Your task to perform on an android device: Open the calendar and show me this week's events Image 0: 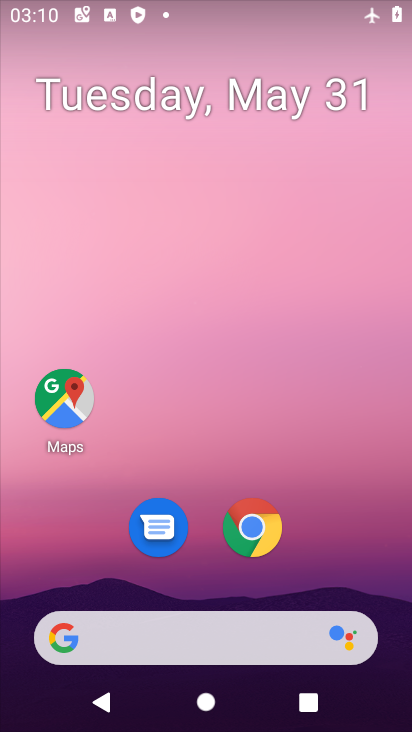
Step 0: drag from (400, 624) to (307, 99)
Your task to perform on an android device: Open the calendar and show me this week's events Image 1: 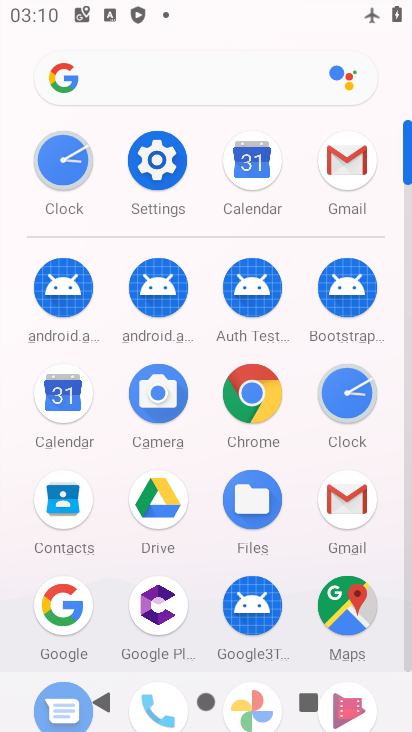
Step 1: click (406, 650)
Your task to perform on an android device: Open the calendar and show me this week's events Image 2: 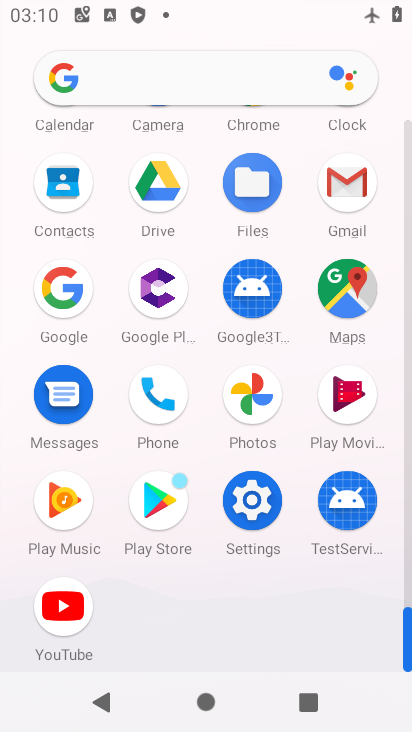
Step 2: click (407, 211)
Your task to perform on an android device: Open the calendar and show me this week's events Image 3: 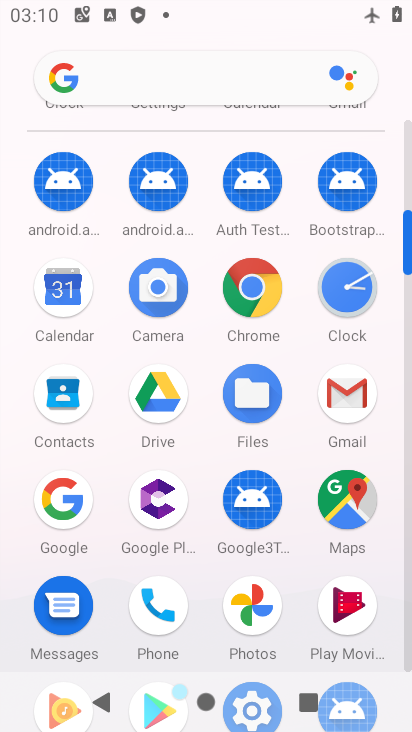
Step 3: click (61, 289)
Your task to perform on an android device: Open the calendar and show me this week's events Image 4: 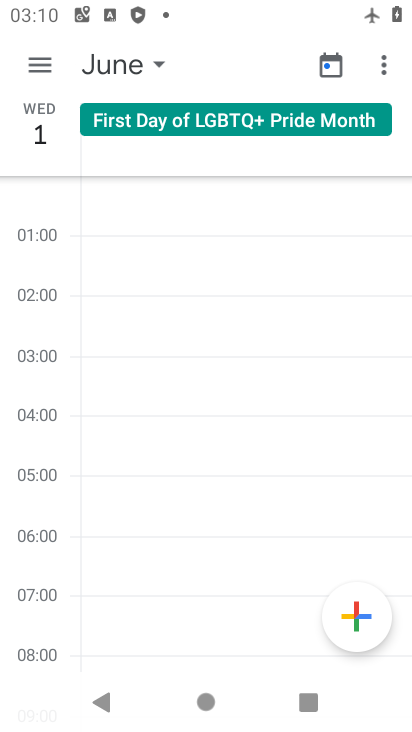
Step 4: click (43, 63)
Your task to perform on an android device: Open the calendar and show me this week's events Image 5: 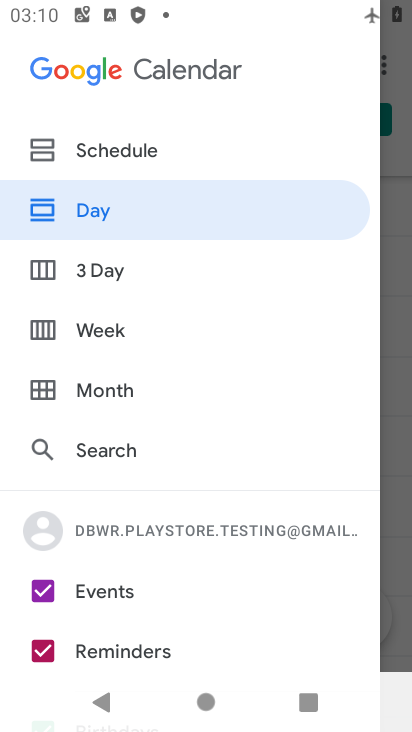
Step 5: click (98, 337)
Your task to perform on an android device: Open the calendar and show me this week's events Image 6: 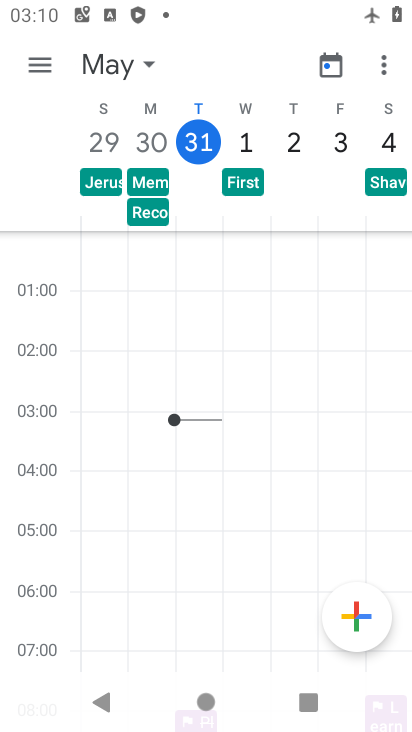
Step 6: task complete